Your task to perform on an android device: Look up the best rated coffee table on Ikea Image 0: 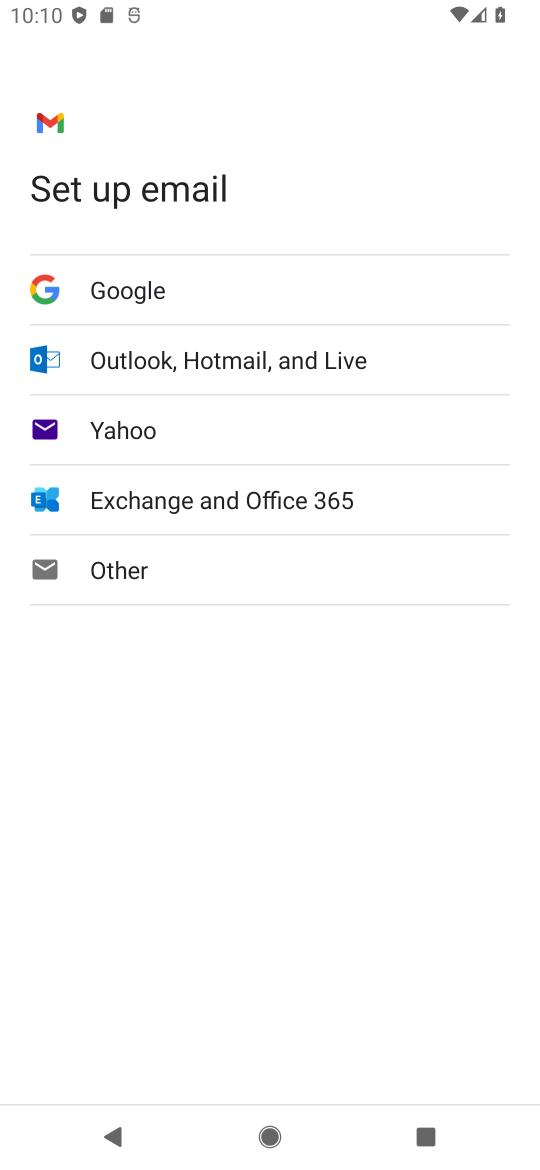
Step 0: press home button
Your task to perform on an android device: Look up the best rated coffee table on Ikea Image 1: 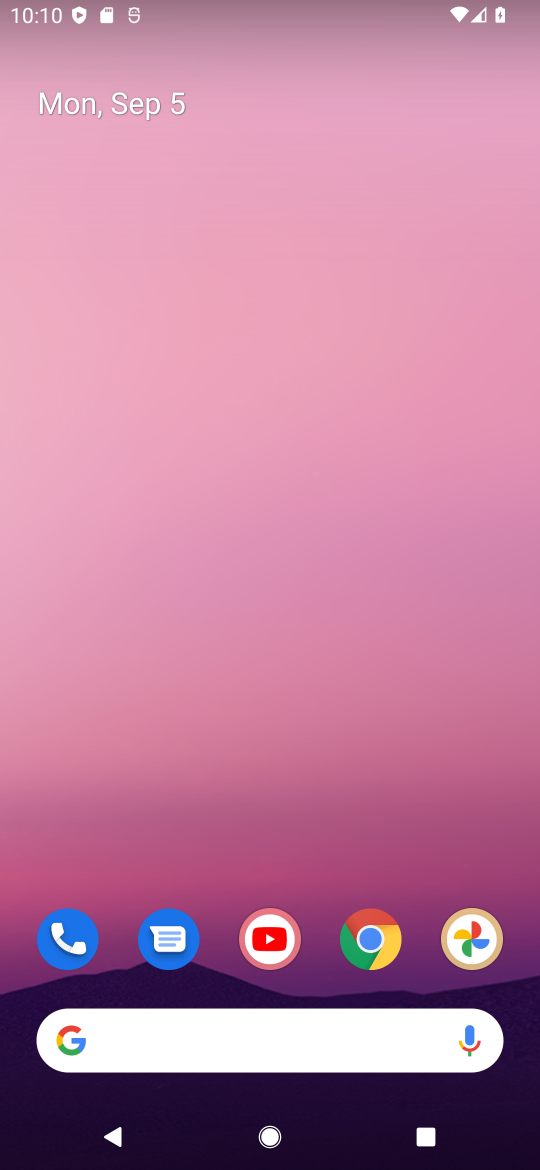
Step 1: drag from (412, 865) to (394, 173)
Your task to perform on an android device: Look up the best rated coffee table on Ikea Image 2: 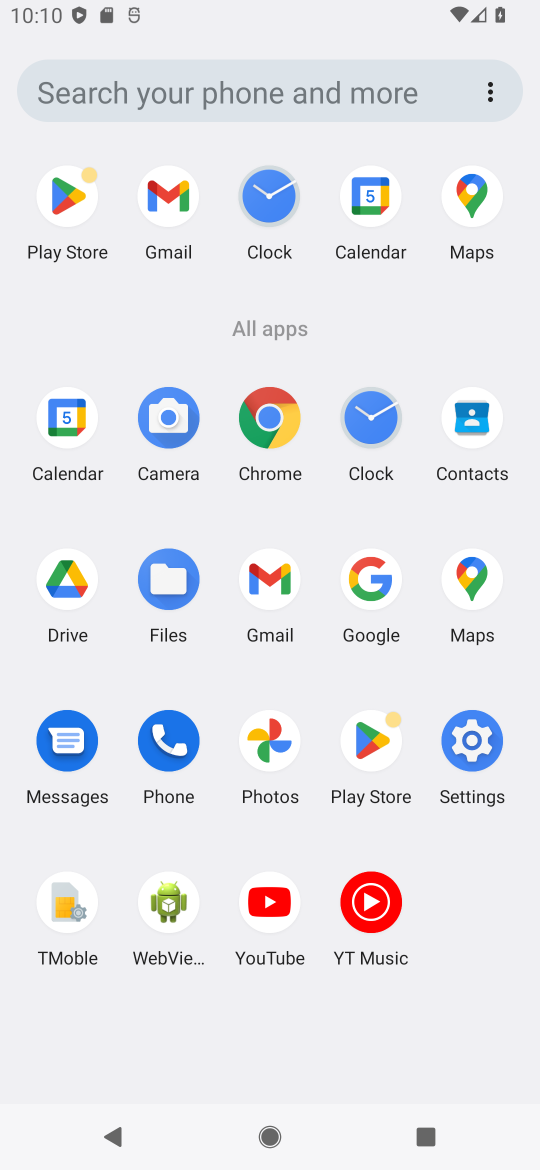
Step 2: click (277, 412)
Your task to perform on an android device: Look up the best rated coffee table on Ikea Image 3: 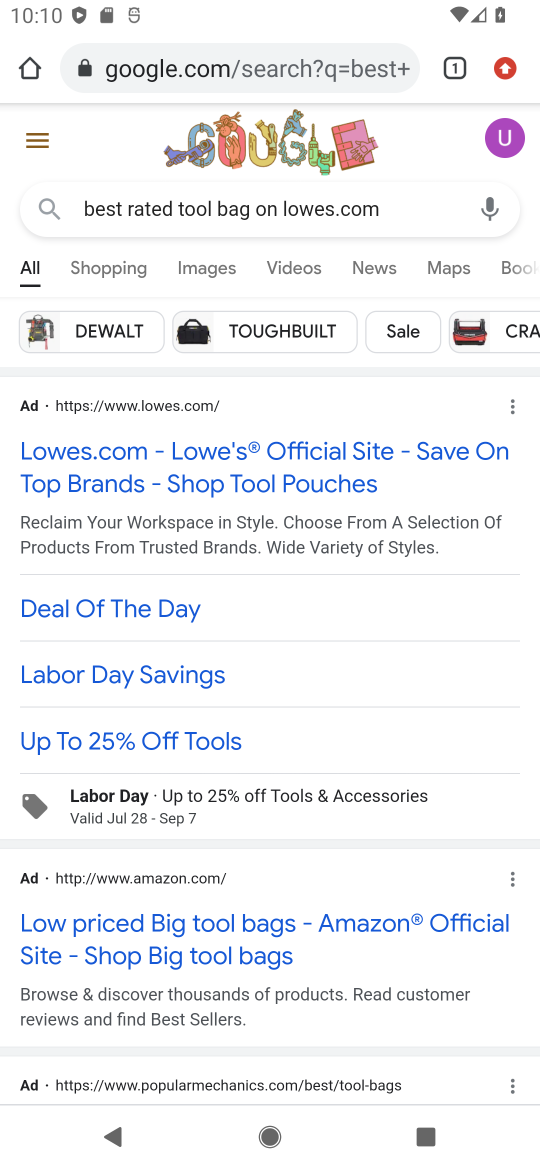
Step 3: click (287, 58)
Your task to perform on an android device: Look up the best rated coffee table on Ikea Image 4: 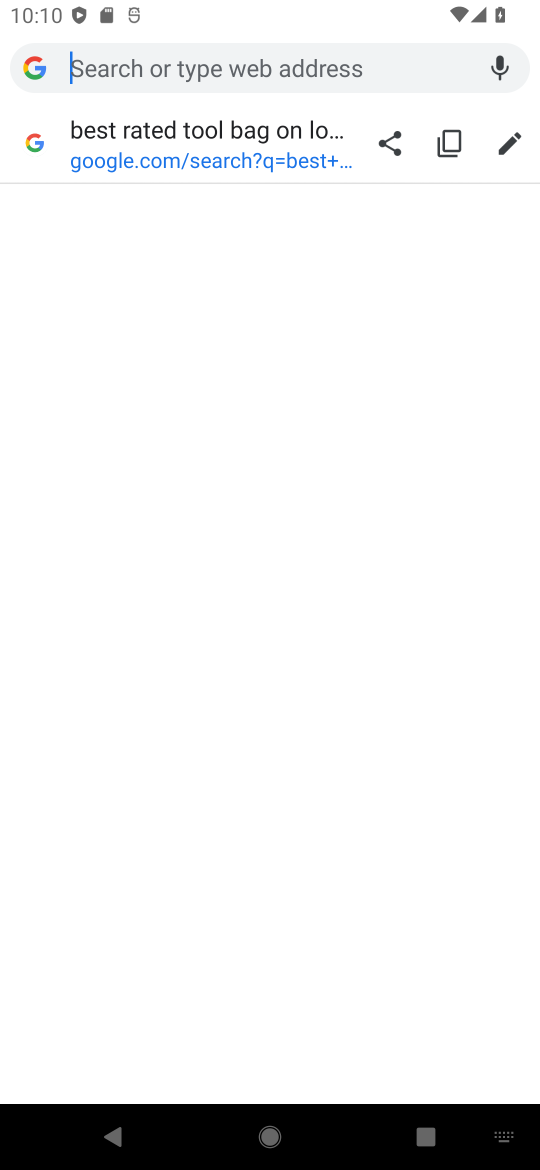
Step 4: type " Ikea"
Your task to perform on an android device: Look up the best rated coffee table on Ikea Image 5: 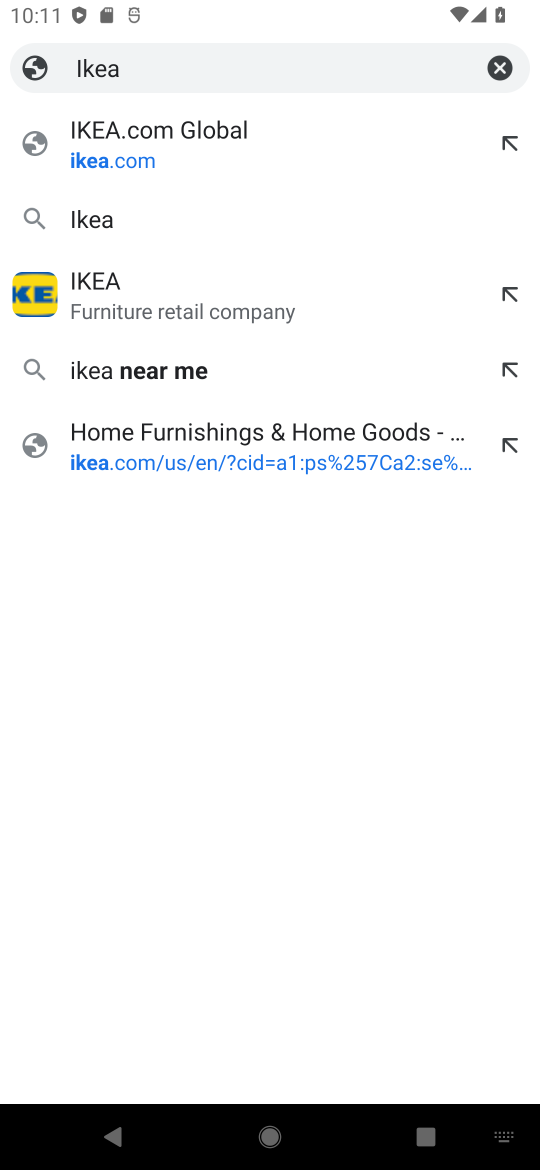
Step 5: click (97, 161)
Your task to perform on an android device: Look up the best rated coffee table on Ikea Image 6: 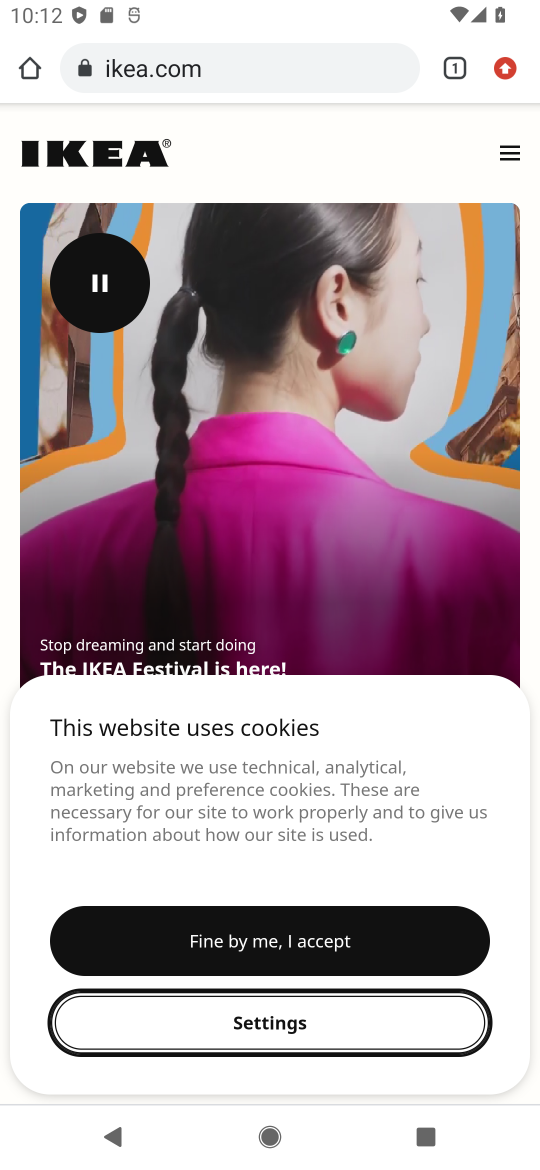
Step 6: task complete